Your task to perform on an android device: Go to Yahoo.com Image 0: 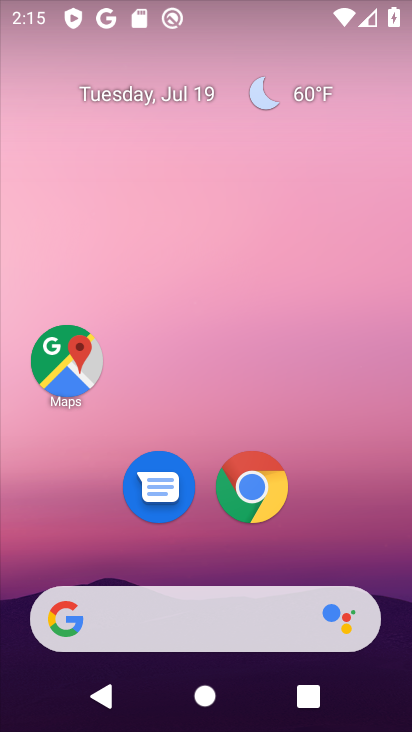
Step 0: click (250, 487)
Your task to perform on an android device: Go to Yahoo.com Image 1: 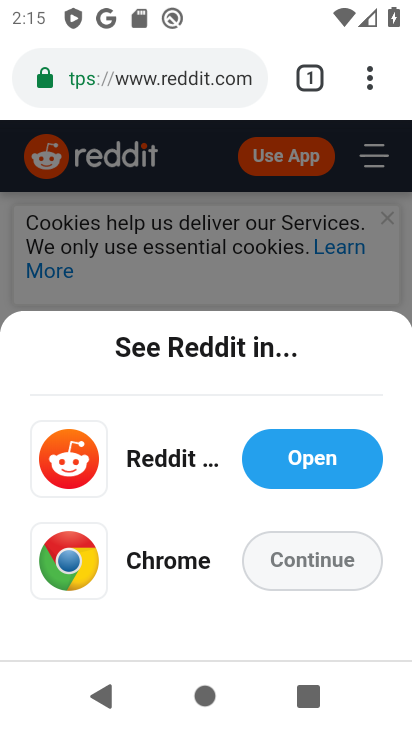
Step 1: click (314, 52)
Your task to perform on an android device: Go to Yahoo.com Image 2: 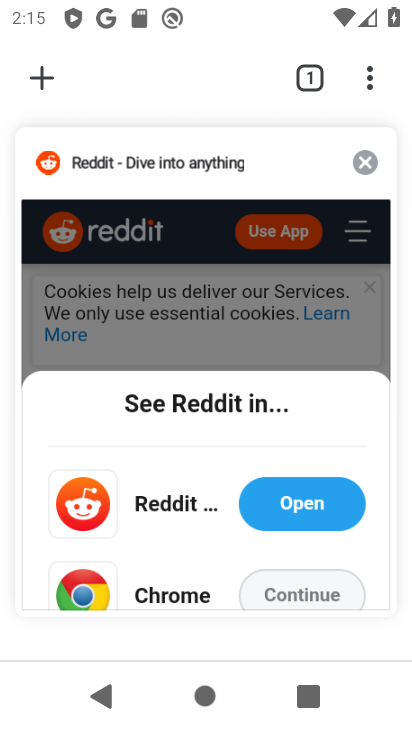
Step 2: click (41, 85)
Your task to perform on an android device: Go to Yahoo.com Image 3: 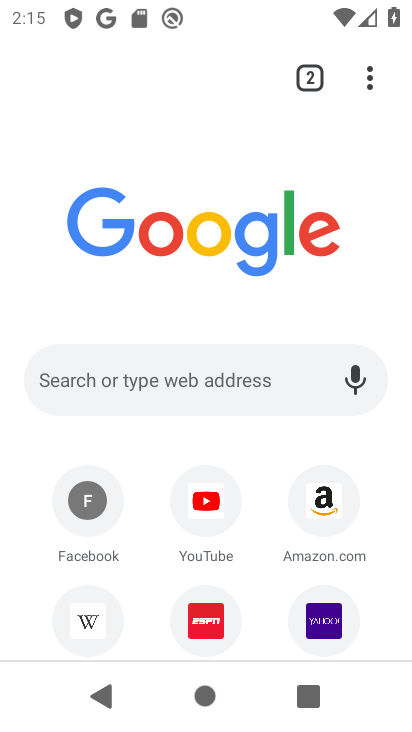
Step 3: click (326, 618)
Your task to perform on an android device: Go to Yahoo.com Image 4: 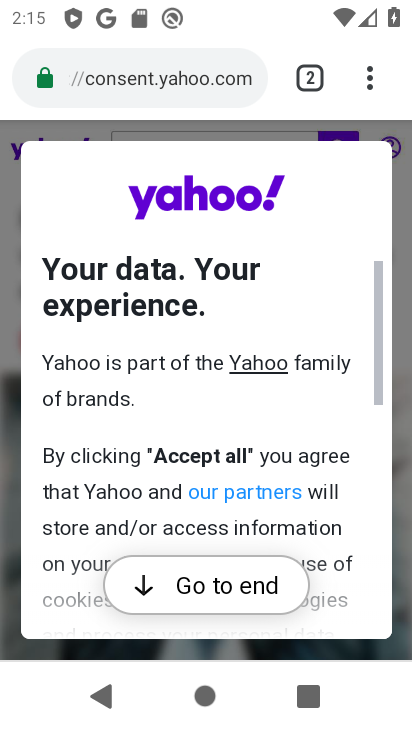
Step 4: task complete